Your task to perform on an android device: Go to Amazon Image 0: 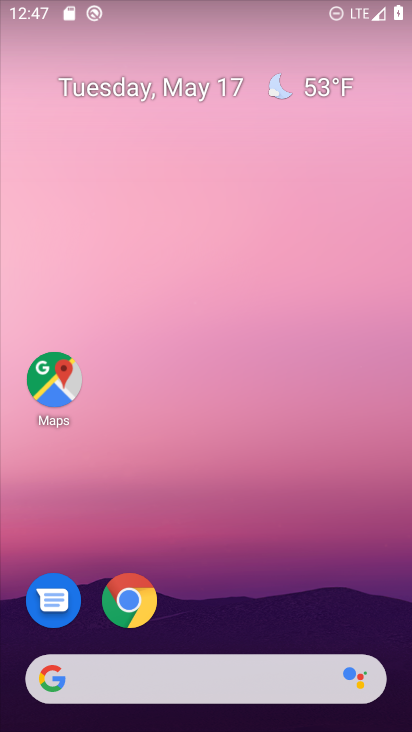
Step 0: click (129, 592)
Your task to perform on an android device: Go to Amazon Image 1: 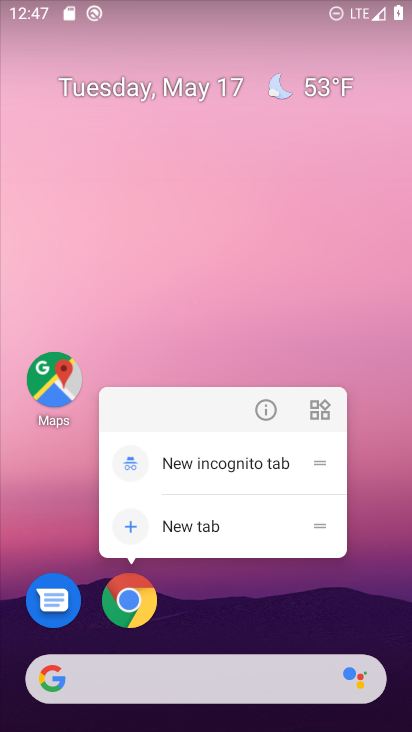
Step 1: click (138, 607)
Your task to perform on an android device: Go to Amazon Image 2: 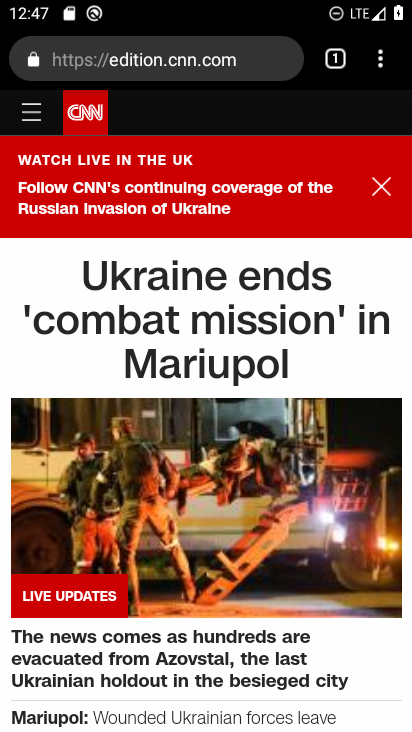
Step 2: click (346, 53)
Your task to perform on an android device: Go to Amazon Image 3: 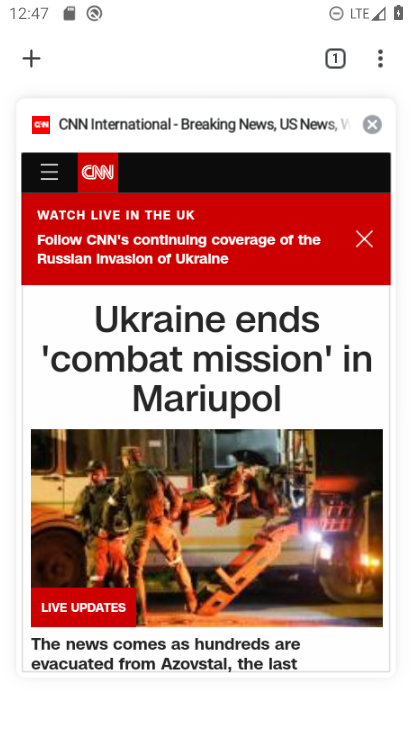
Step 3: click (31, 58)
Your task to perform on an android device: Go to Amazon Image 4: 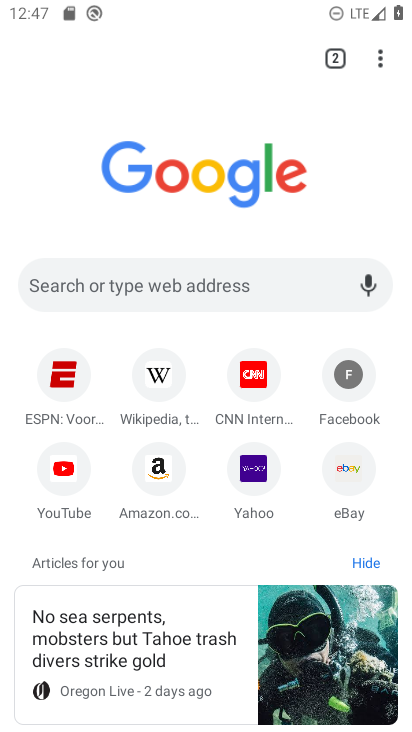
Step 4: click (154, 478)
Your task to perform on an android device: Go to Amazon Image 5: 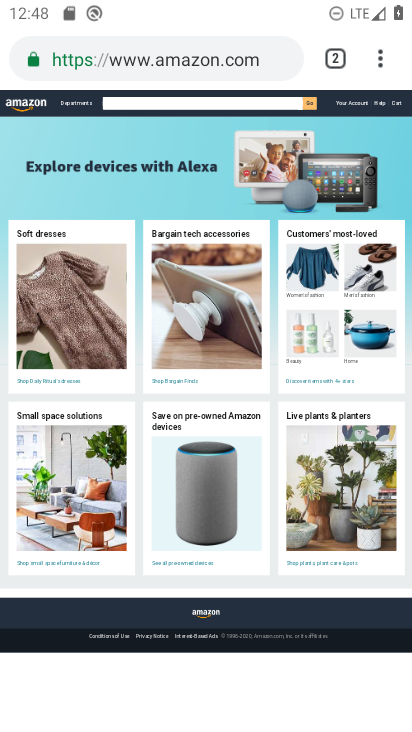
Step 5: task complete